Your task to perform on an android device: turn off sleep mode Image 0: 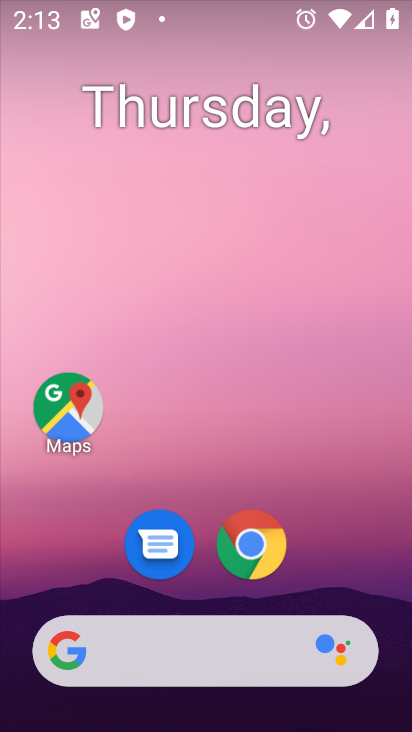
Step 0: drag from (356, 569) to (289, 164)
Your task to perform on an android device: turn off sleep mode Image 1: 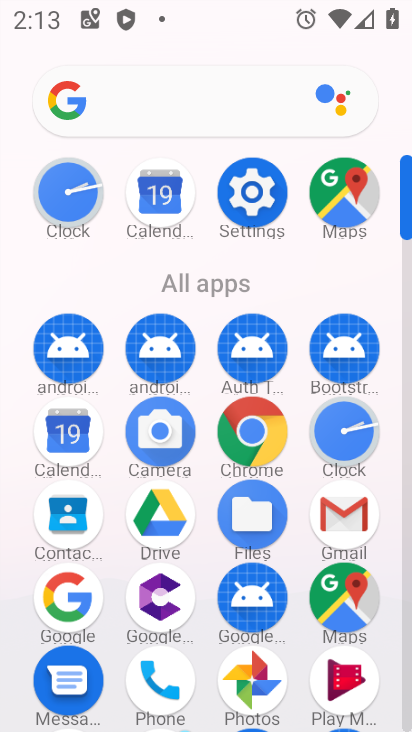
Step 1: click (251, 210)
Your task to perform on an android device: turn off sleep mode Image 2: 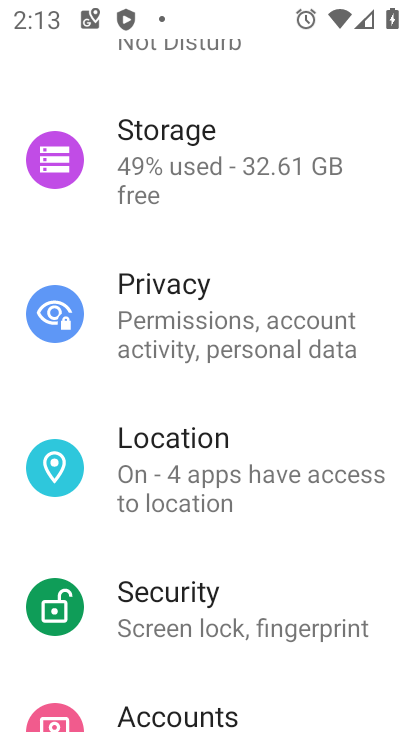
Step 2: drag from (260, 219) to (237, 454)
Your task to perform on an android device: turn off sleep mode Image 3: 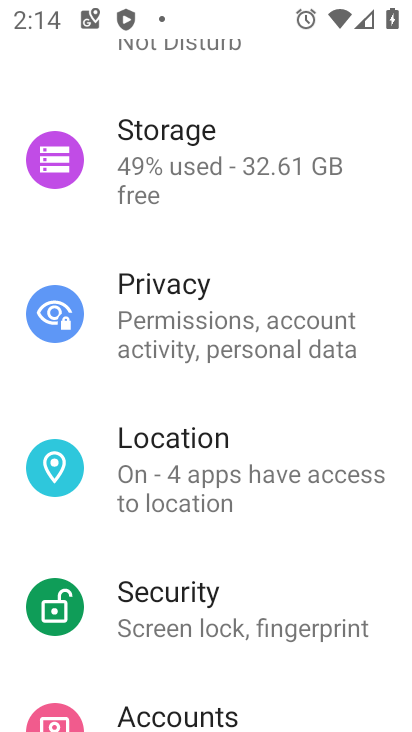
Step 3: drag from (299, 222) to (252, 683)
Your task to perform on an android device: turn off sleep mode Image 4: 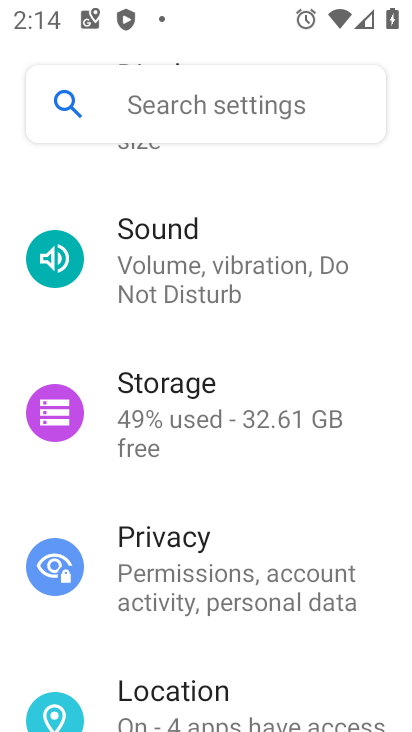
Step 4: drag from (326, 221) to (294, 677)
Your task to perform on an android device: turn off sleep mode Image 5: 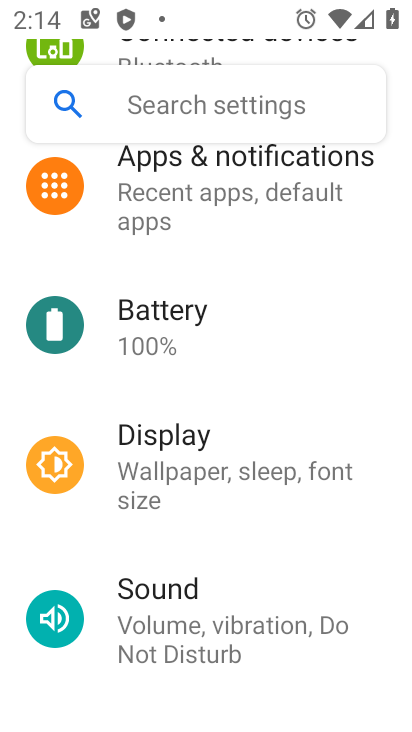
Step 5: click (272, 484)
Your task to perform on an android device: turn off sleep mode Image 6: 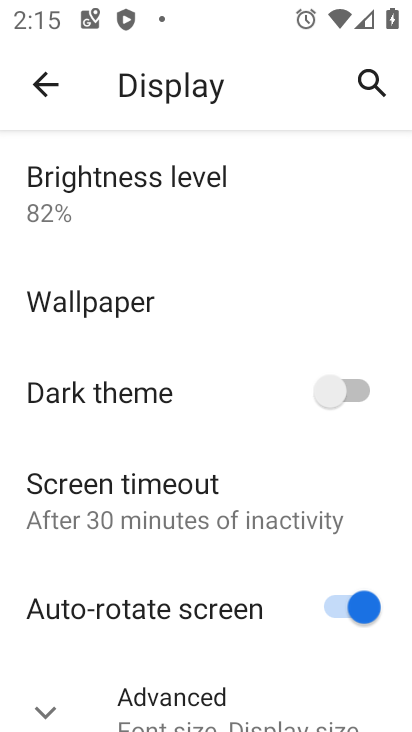
Step 6: click (249, 515)
Your task to perform on an android device: turn off sleep mode Image 7: 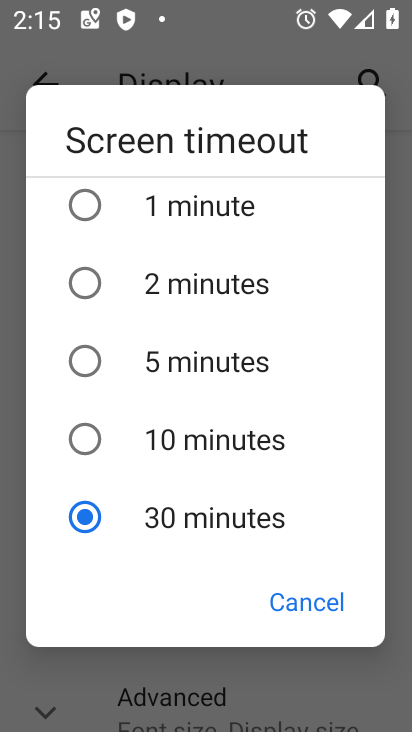
Step 7: task complete